Your task to perform on an android device: uninstall "Adobe Express: Graphic Design" Image 0: 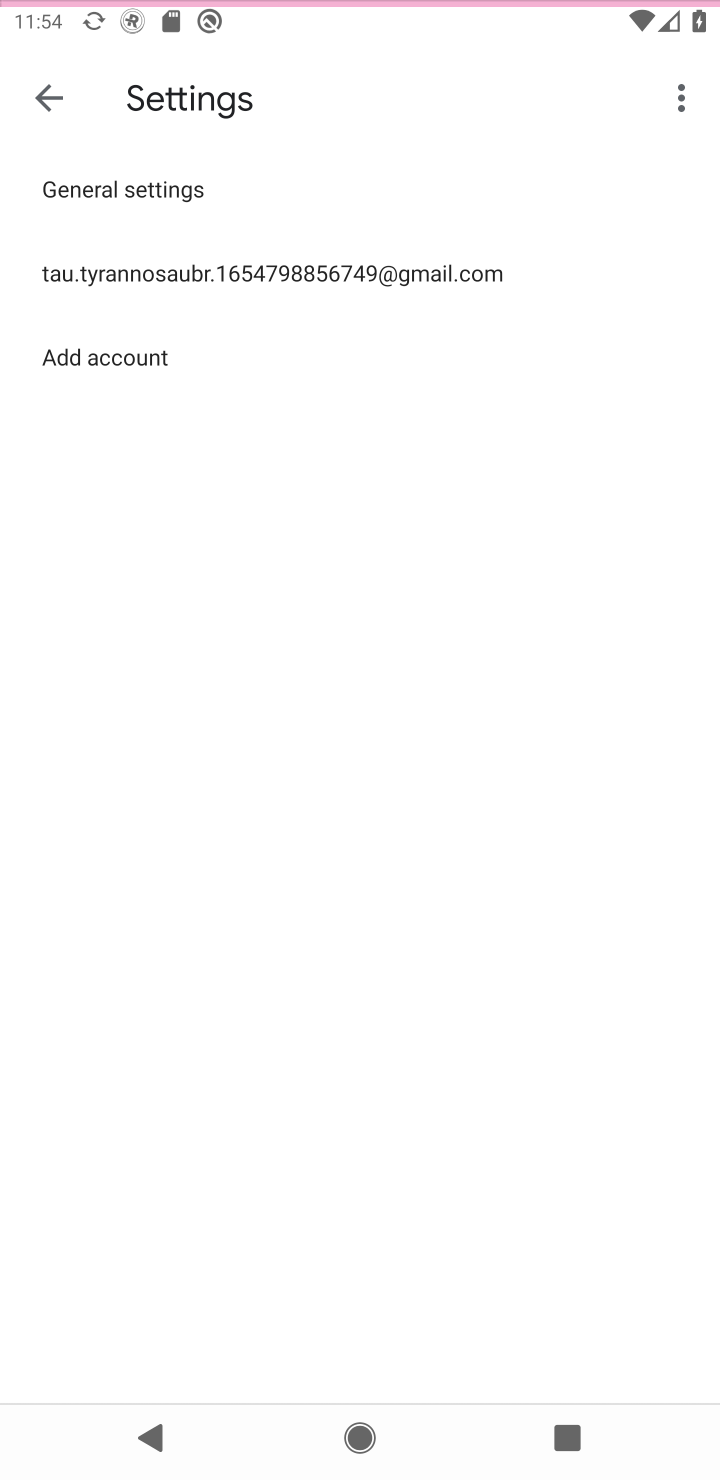
Step 0: press home button
Your task to perform on an android device: uninstall "Adobe Express: Graphic Design" Image 1: 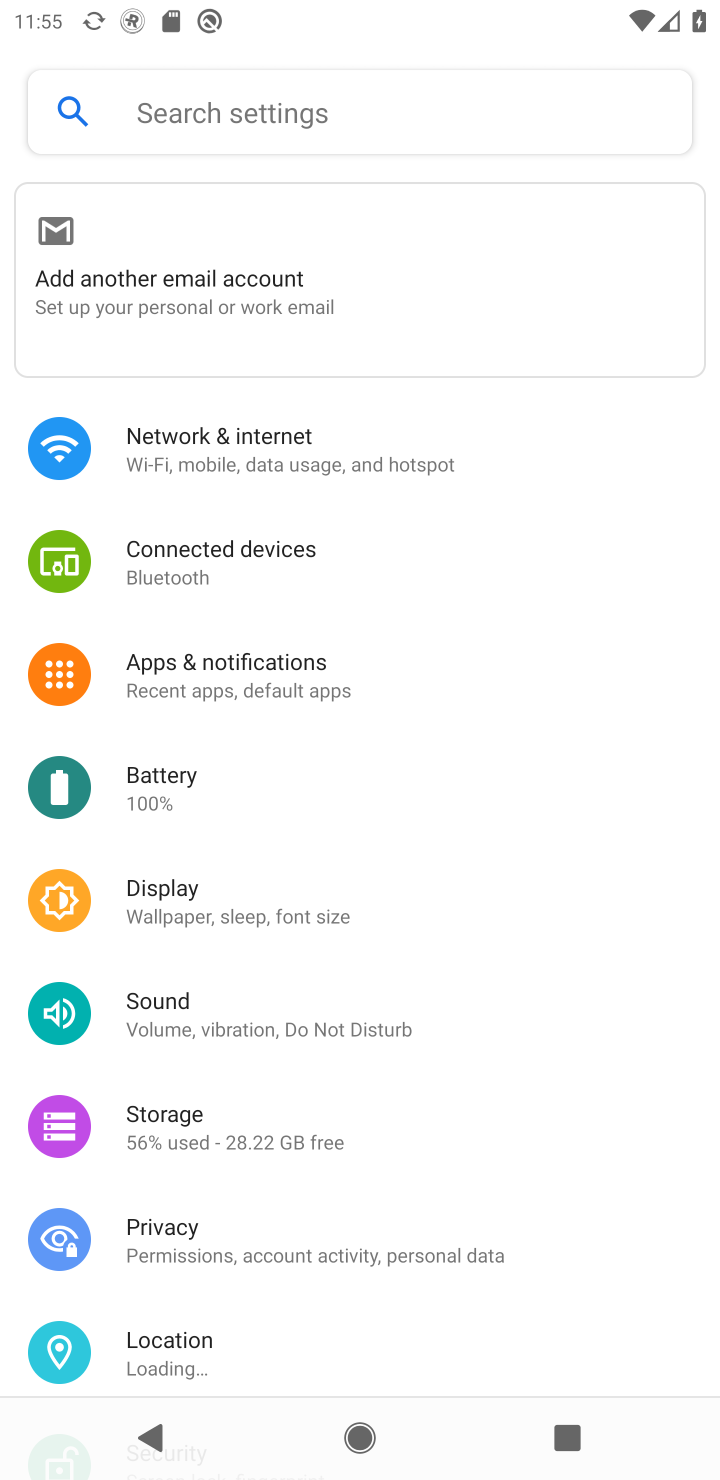
Step 1: press home button
Your task to perform on an android device: uninstall "Adobe Express: Graphic Design" Image 2: 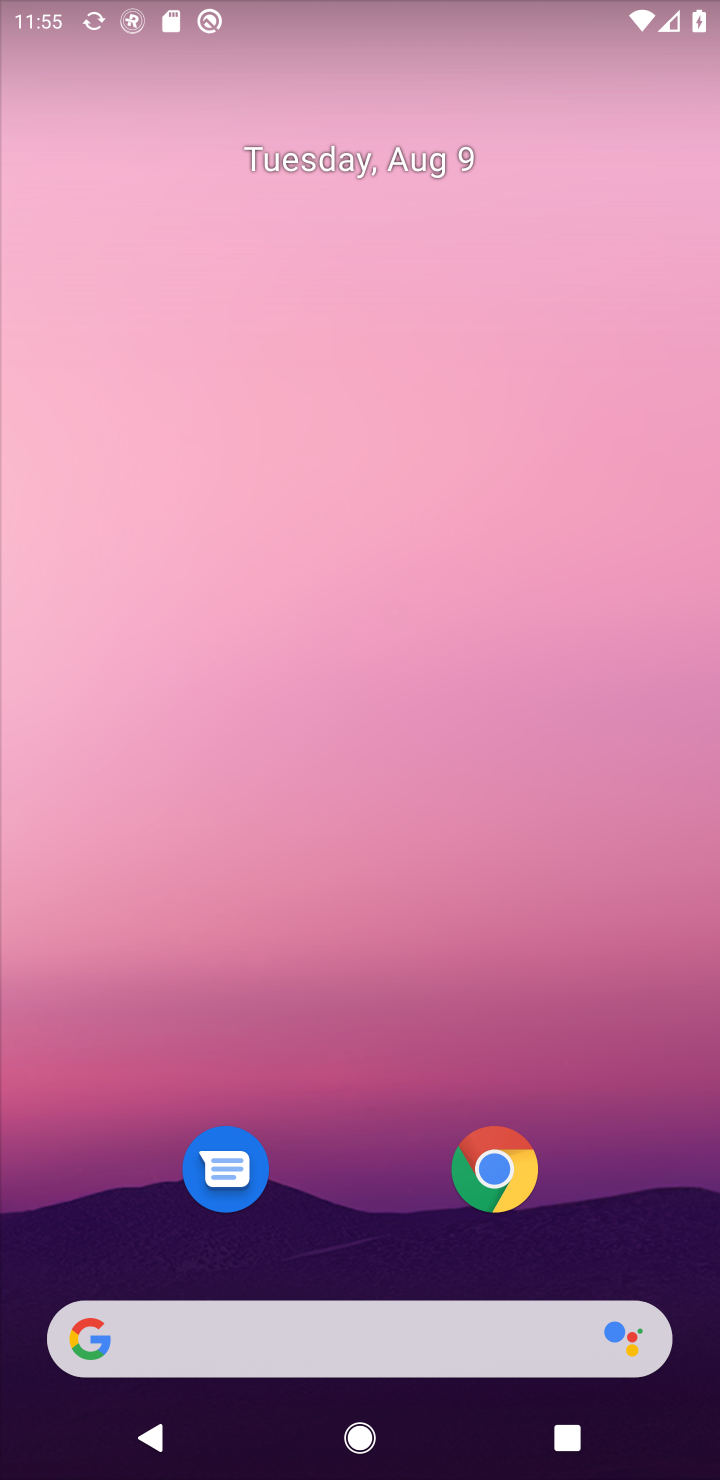
Step 2: drag from (620, 1107) to (611, 102)
Your task to perform on an android device: uninstall "Adobe Express: Graphic Design" Image 3: 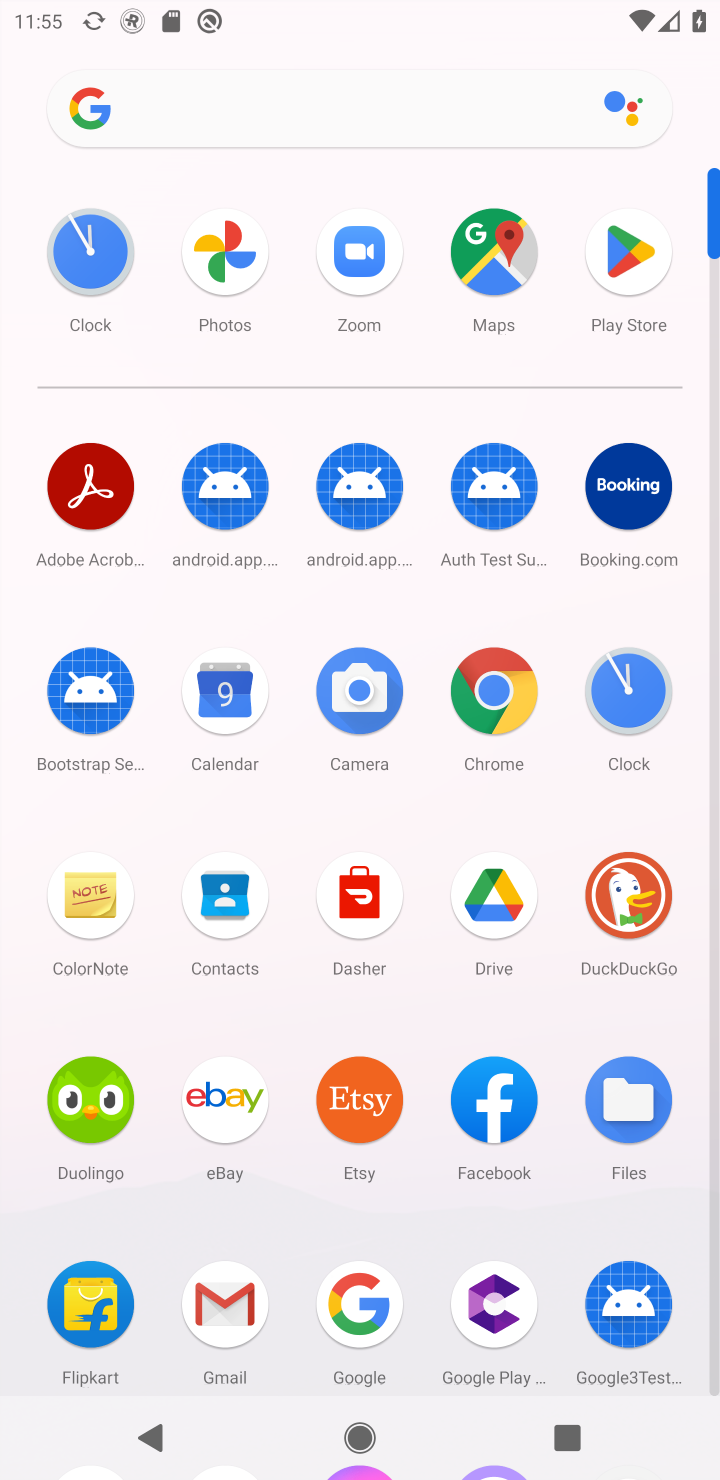
Step 3: click (620, 252)
Your task to perform on an android device: uninstall "Adobe Express: Graphic Design" Image 4: 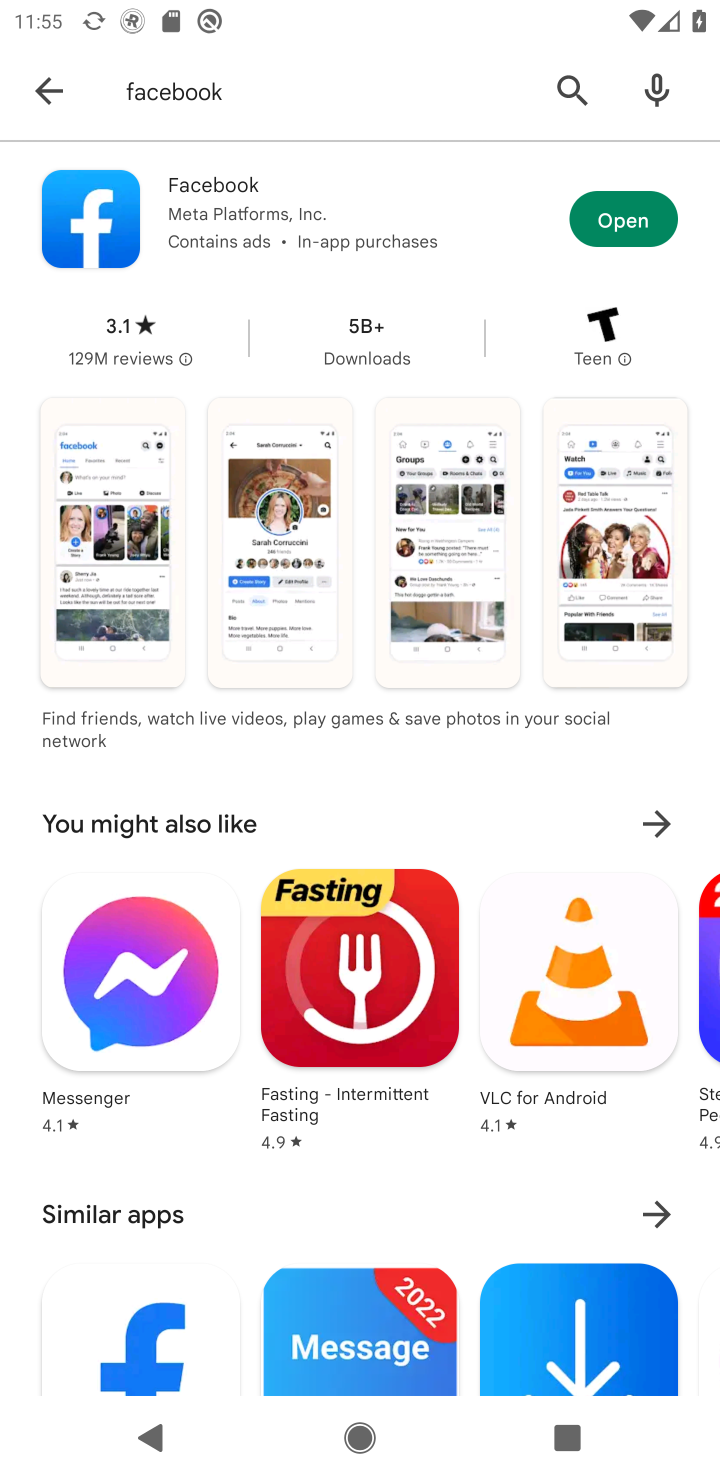
Step 4: click (575, 90)
Your task to perform on an android device: uninstall "Adobe Express: Graphic Design" Image 5: 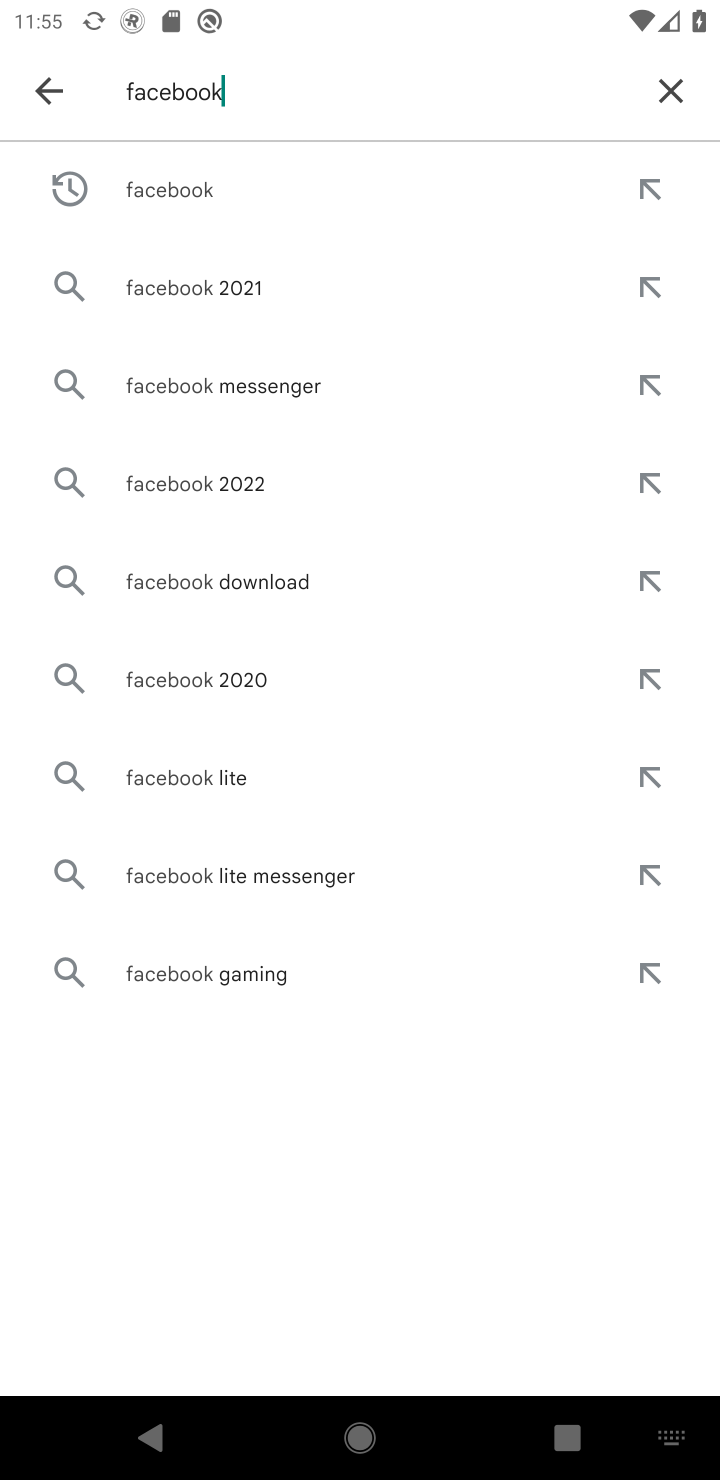
Step 5: click (665, 92)
Your task to perform on an android device: uninstall "Adobe Express: Graphic Design" Image 6: 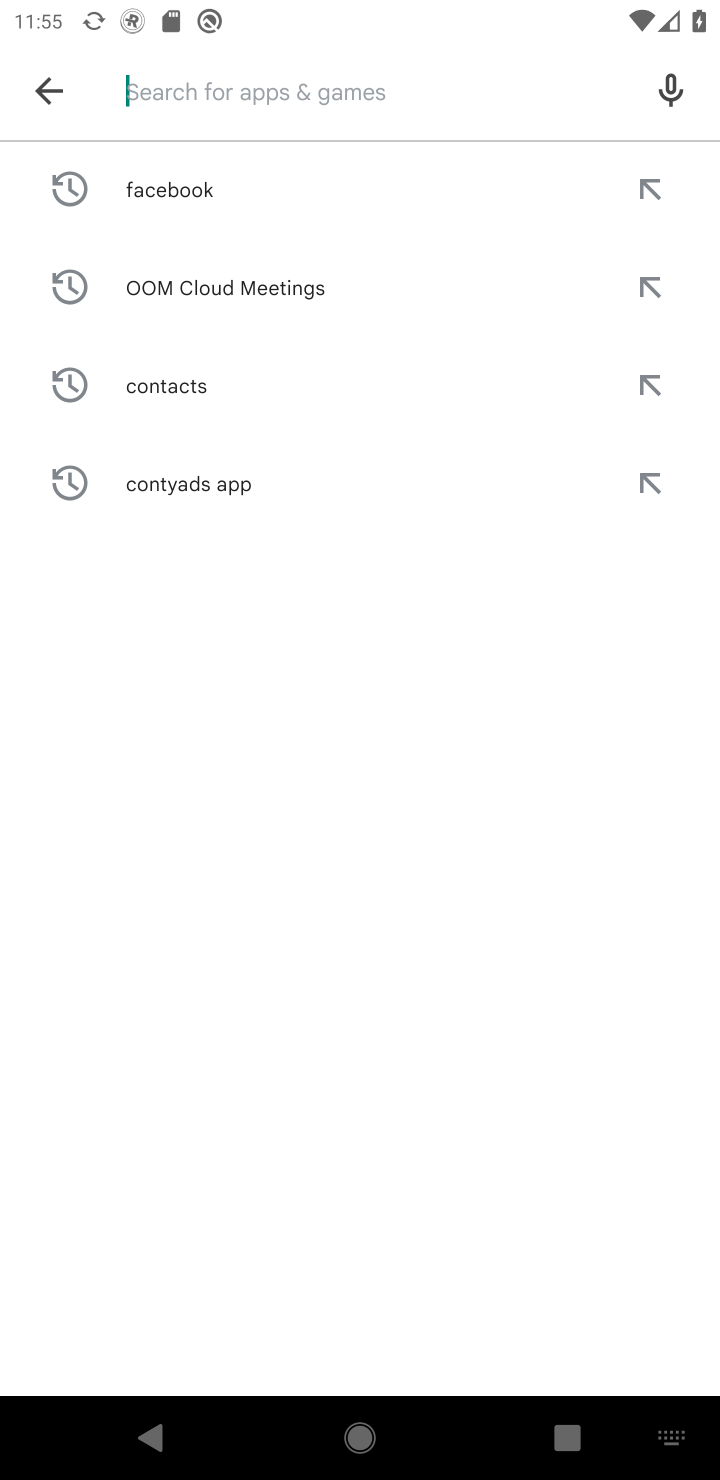
Step 6: press enter
Your task to perform on an android device: uninstall "Adobe Express: Graphic Design" Image 7: 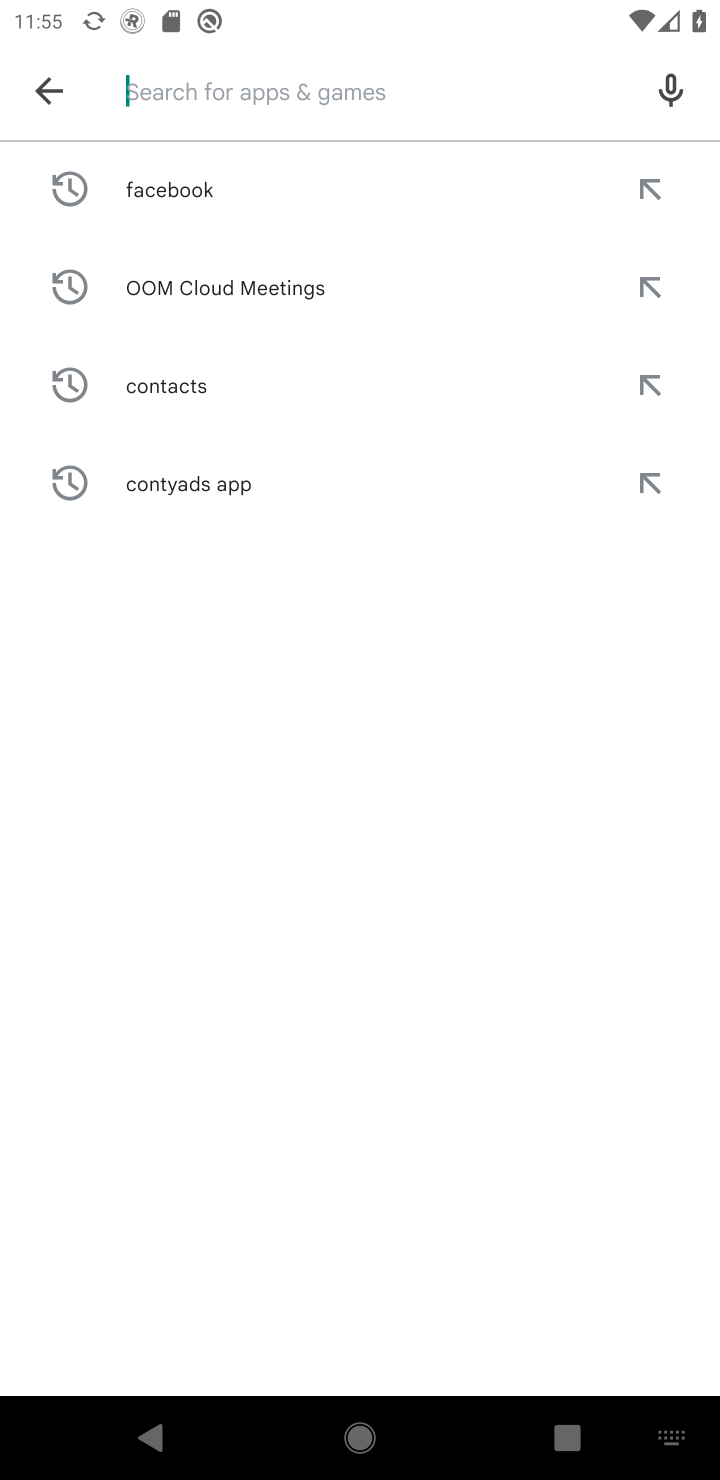
Step 7: type "Adobe Express: Graphic Design"
Your task to perform on an android device: uninstall "Adobe Express: Graphic Design" Image 8: 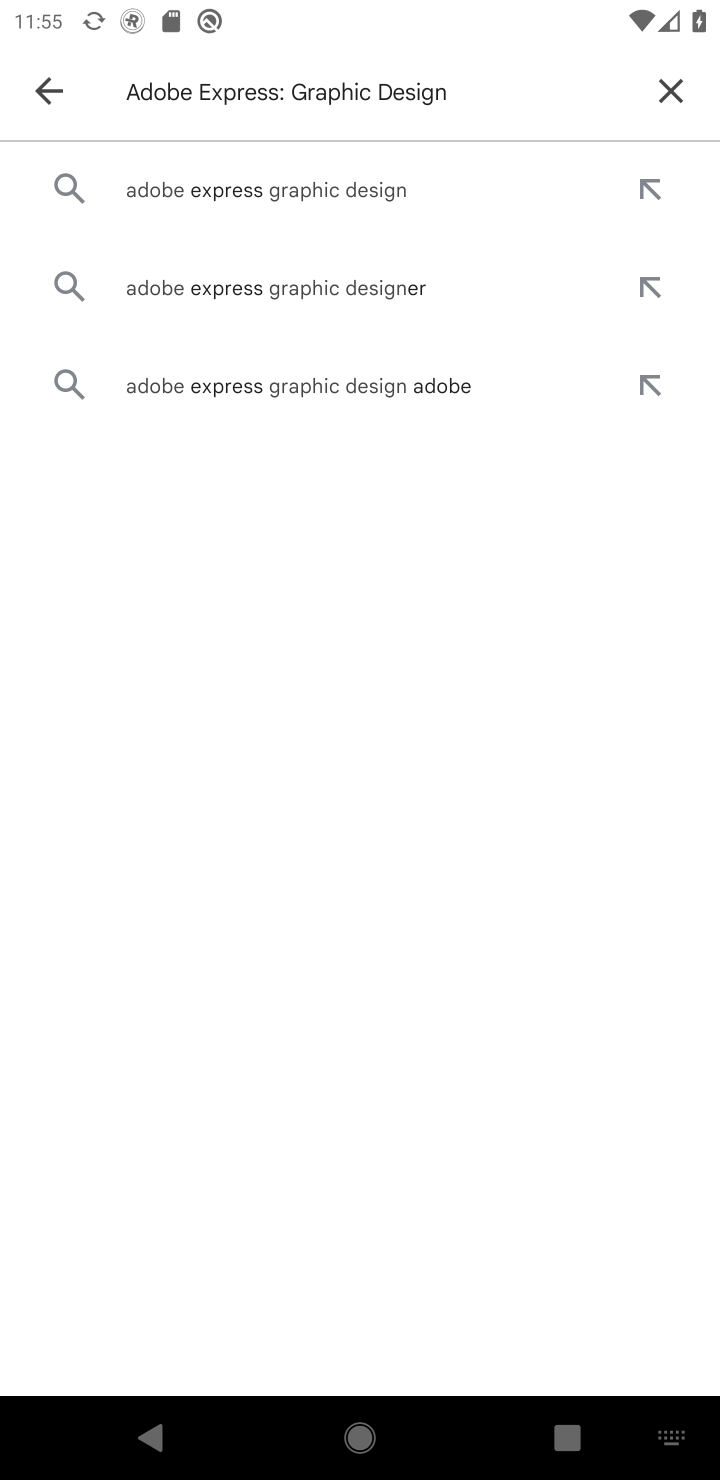
Step 8: click (345, 176)
Your task to perform on an android device: uninstall "Adobe Express: Graphic Design" Image 9: 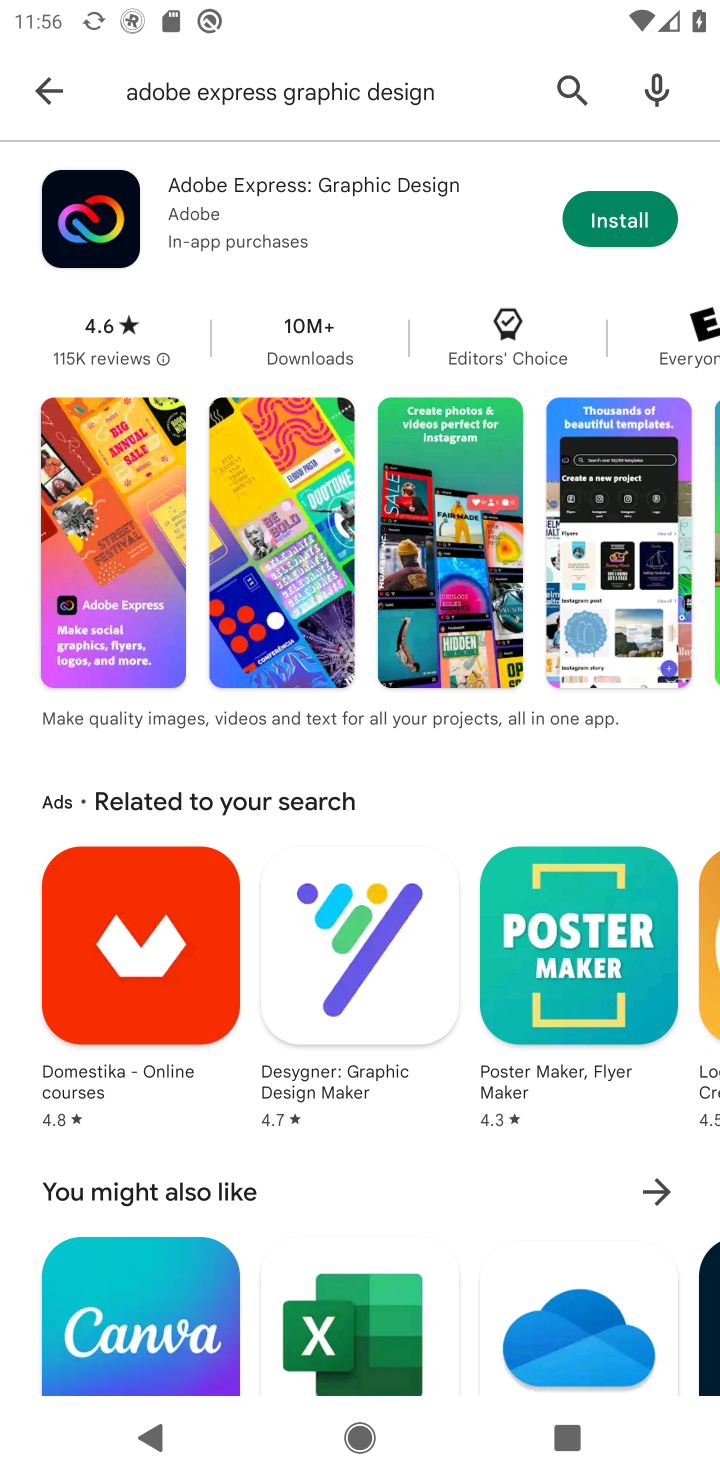
Step 9: task complete